Your task to perform on an android device: What's the weather today? Image 0: 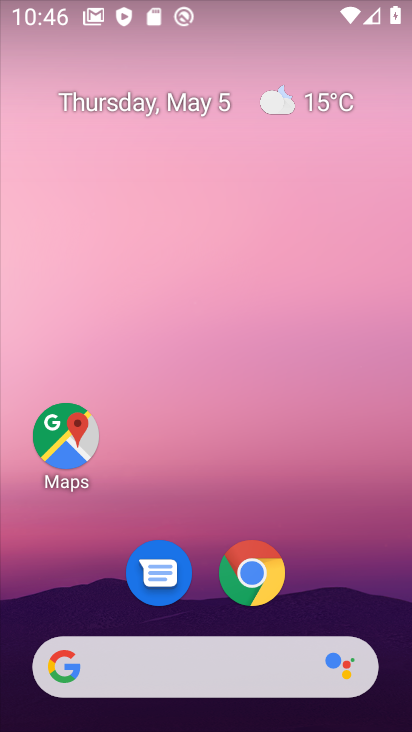
Step 0: click (266, 95)
Your task to perform on an android device: What's the weather today? Image 1: 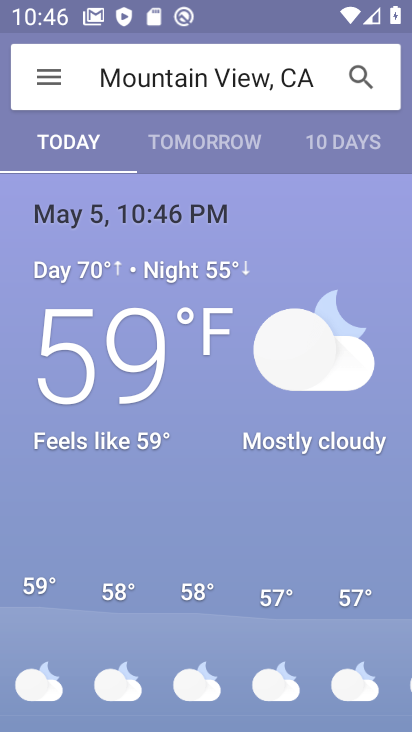
Step 1: task complete